Your task to perform on an android device: Show me popular games on the Play Store Image 0: 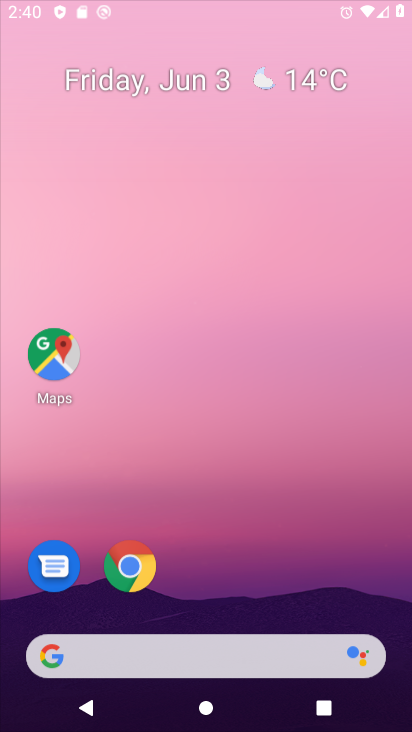
Step 0: click (221, 103)
Your task to perform on an android device: Show me popular games on the Play Store Image 1: 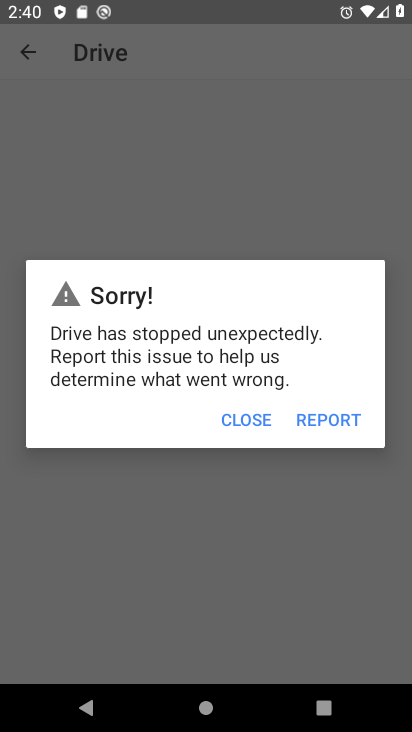
Step 1: press home button
Your task to perform on an android device: Show me popular games on the Play Store Image 2: 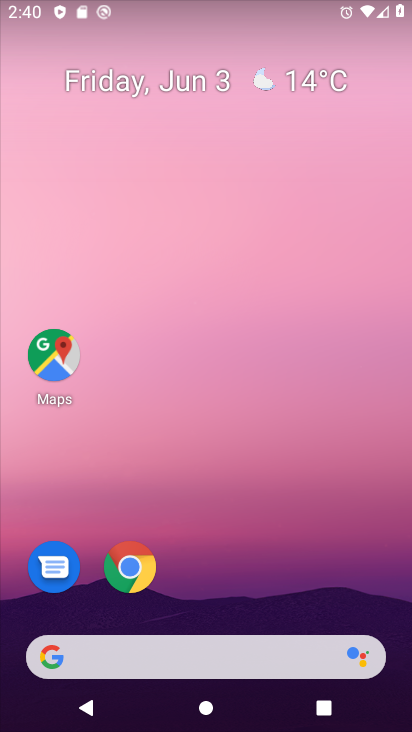
Step 2: drag from (244, 692) to (175, 115)
Your task to perform on an android device: Show me popular games on the Play Store Image 3: 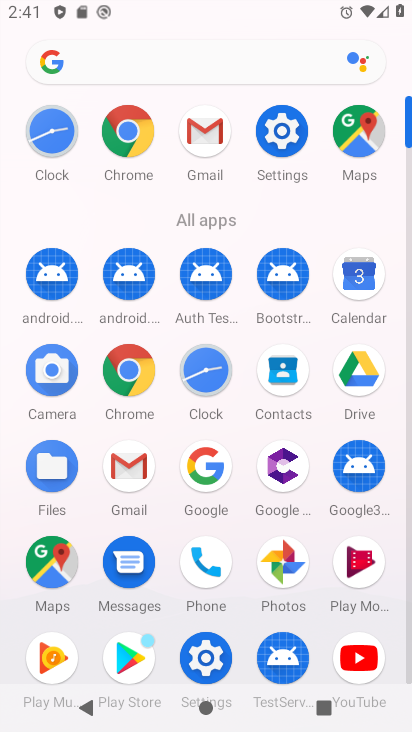
Step 3: click (131, 656)
Your task to perform on an android device: Show me popular games on the Play Store Image 4: 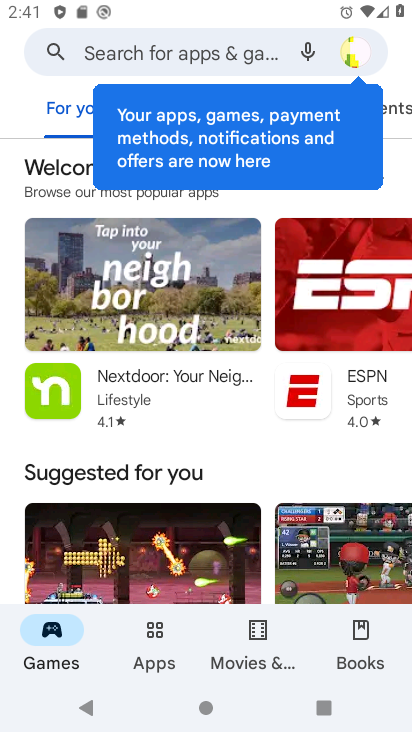
Step 4: click (150, 44)
Your task to perform on an android device: Show me popular games on the Play Store Image 5: 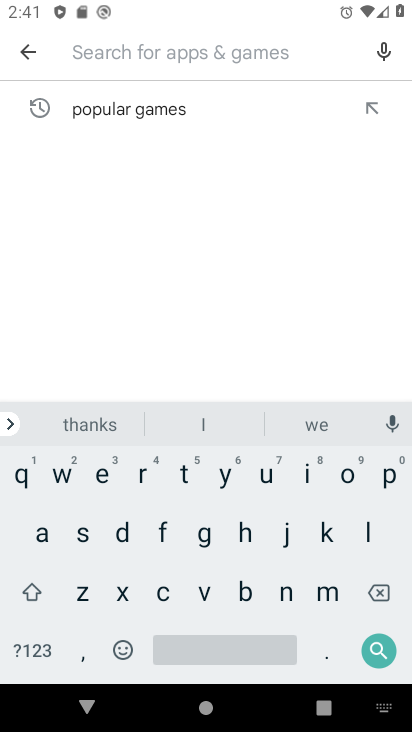
Step 5: click (200, 113)
Your task to perform on an android device: Show me popular games on the Play Store Image 6: 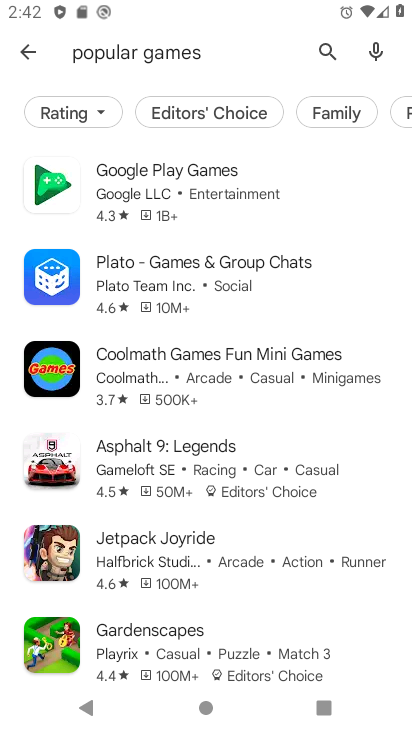
Step 6: task complete